Your task to perform on an android device: Open my contact list Image 0: 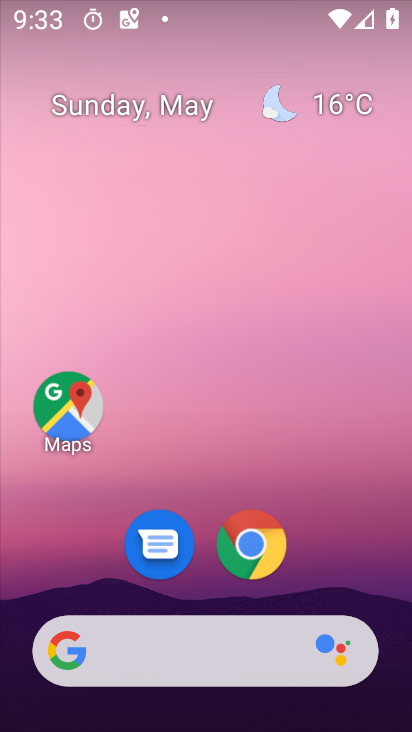
Step 0: drag from (306, 583) to (303, 103)
Your task to perform on an android device: Open my contact list Image 1: 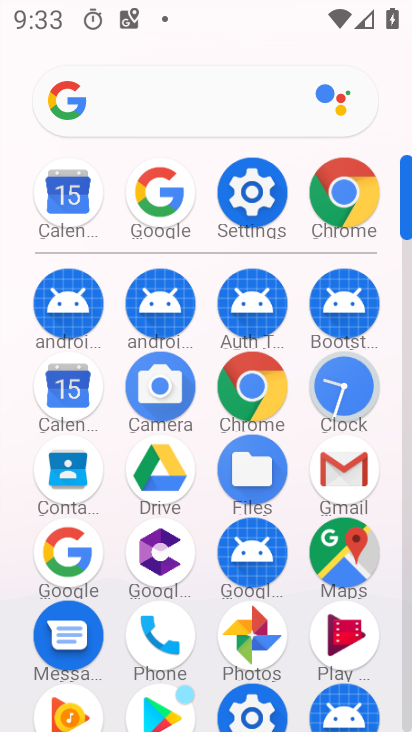
Step 1: click (80, 476)
Your task to perform on an android device: Open my contact list Image 2: 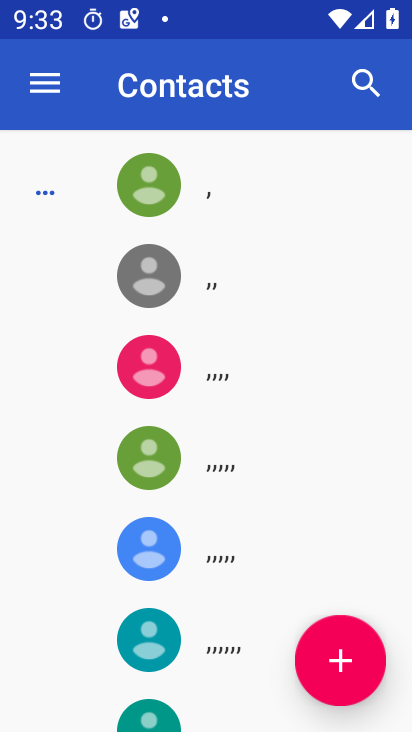
Step 2: task complete